Your task to perform on an android device: Clear the shopping cart on costco.com. Image 0: 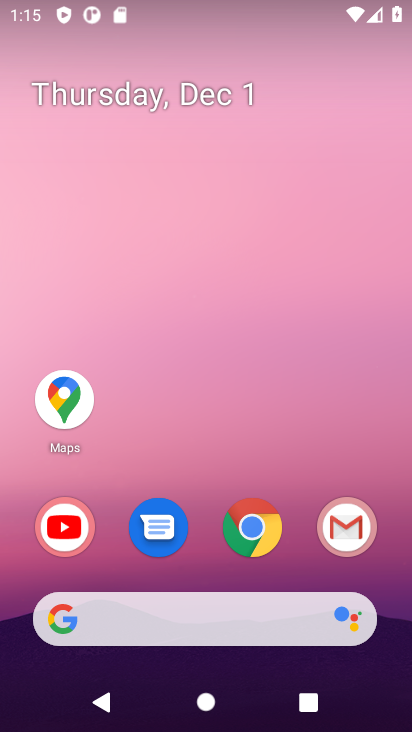
Step 0: click (251, 534)
Your task to perform on an android device: Clear the shopping cart on costco.com. Image 1: 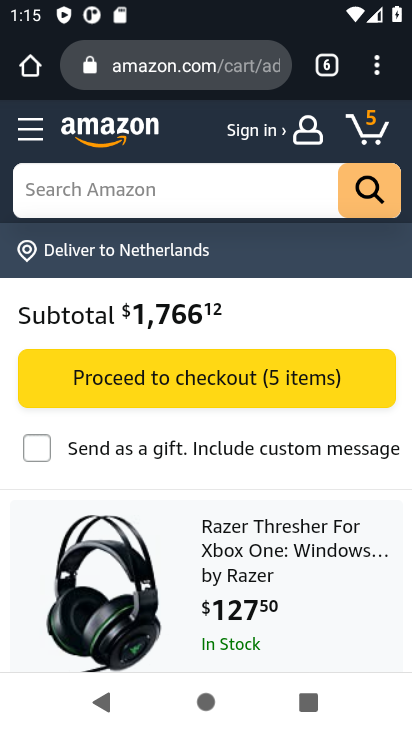
Step 1: click (144, 70)
Your task to perform on an android device: Clear the shopping cart on costco.com. Image 2: 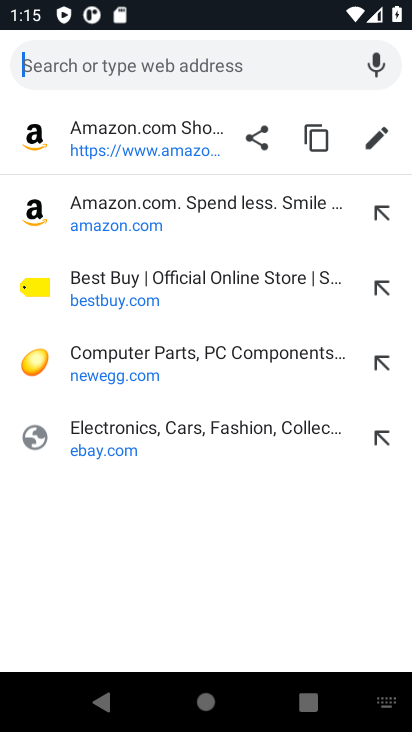
Step 2: type "costco.com"
Your task to perform on an android device: Clear the shopping cart on costco.com. Image 3: 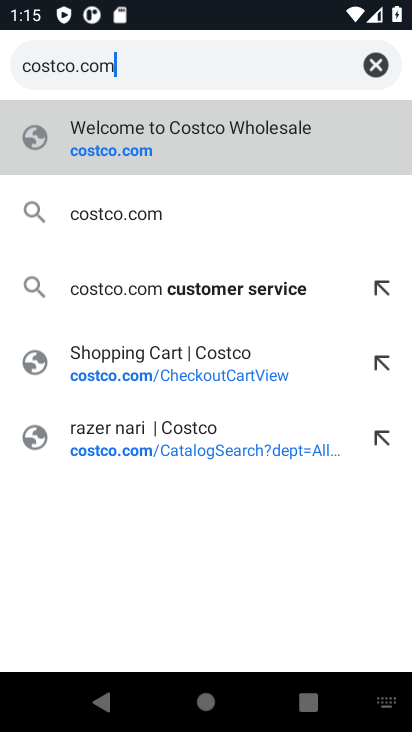
Step 3: click (102, 157)
Your task to perform on an android device: Clear the shopping cart on costco.com. Image 4: 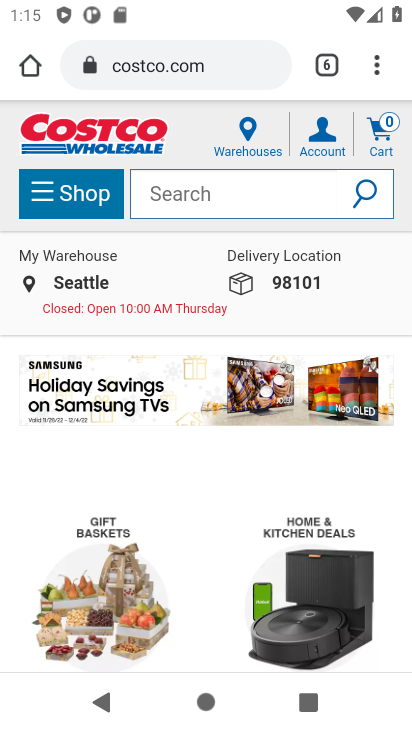
Step 4: click (378, 147)
Your task to perform on an android device: Clear the shopping cart on costco.com. Image 5: 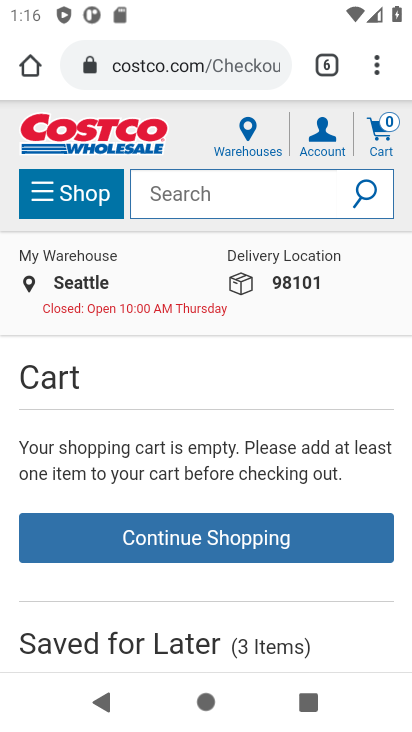
Step 5: task complete